Your task to perform on an android device: turn on notifications settings in the gmail app Image 0: 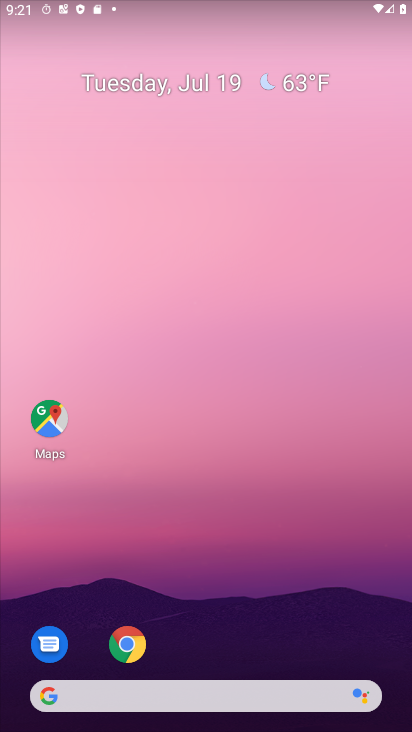
Step 0: drag from (262, 596) to (236, 233)
Your task to perform on an android device: turn on notifications settings in the gmail app Image 1: 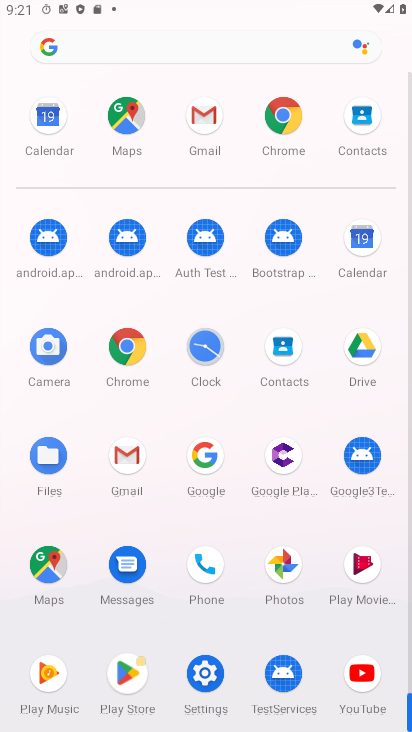
Step 1: drag from (253, 462) to (253, 144)
Your task to perform on an android device: turn on notifications settings in the gmail app Image 2: 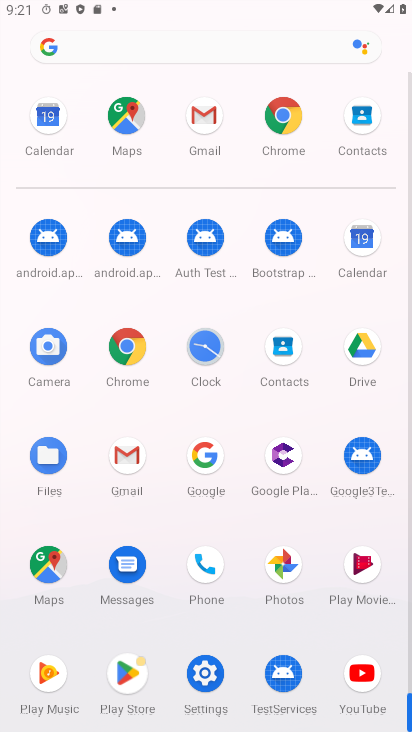
Step 2: click (201, 114)
Your task to perform on an android device: turn on notifications settings in the gmail app Image 3: 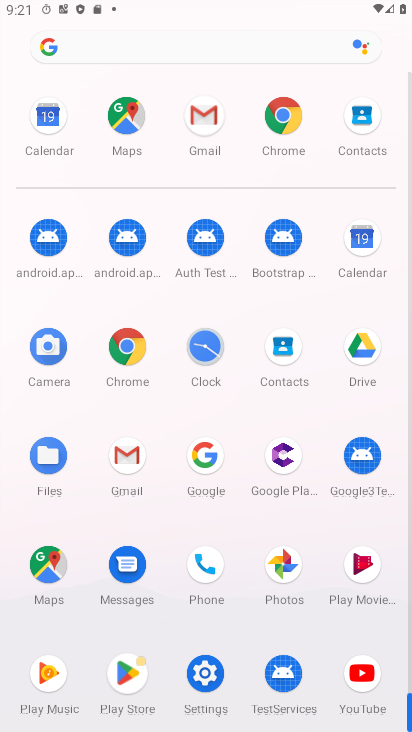
Step 3: click (201, 114)
Your task to perform on an android device: turn on notifications settings in the gmail app Image 4: 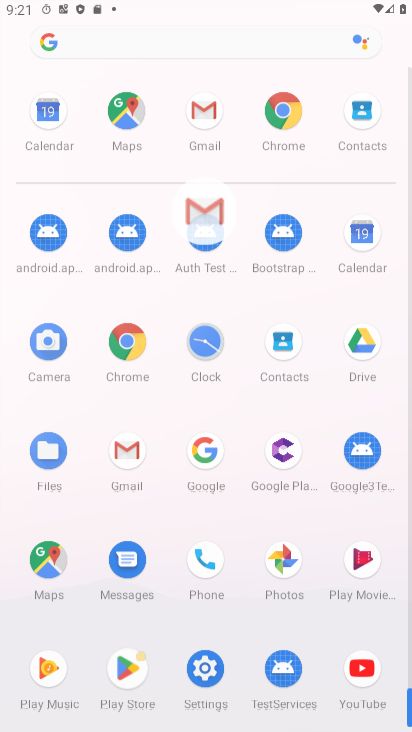
Step 4: click (201, 114)
Your task to perform on an android device: turn on notifications settings in the gmail app Image 5: 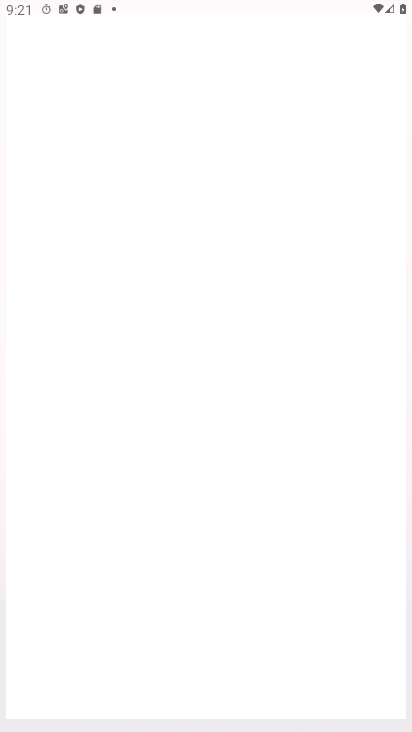
Step 5: click (200, 113)
Your task to perform on an android device: turn on notifications settings in the gmail app Image 6: 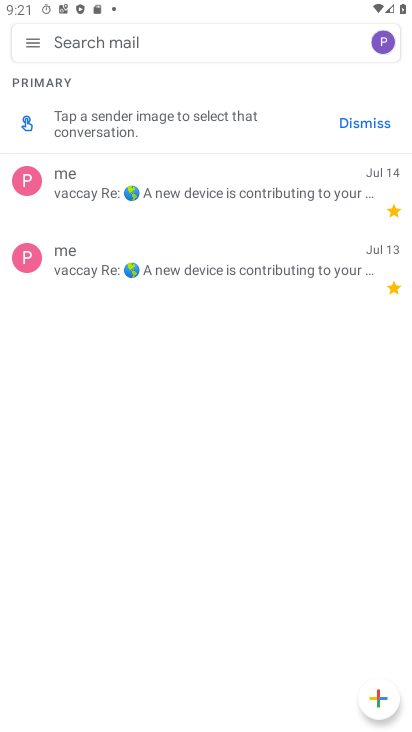
Step 6: click (31, 46)
Your task to perform on an android device: turn on notifications settings in the gmail app Image 7: 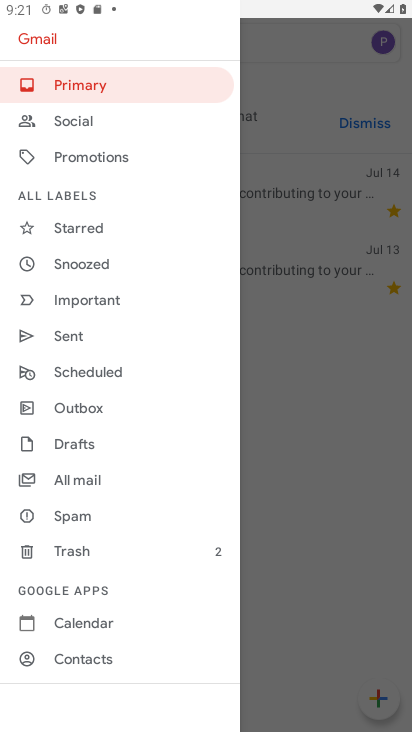
Step 7: drag from (90, 519) to (93, 273)
Your task to perform on an android device: turn on notifications settings in the gmail app Image 8: 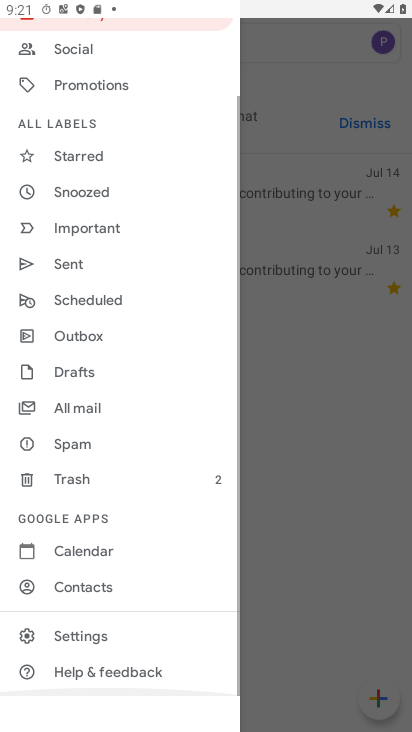
Step 8: drag from (160, 527) to (160, 198)
Your task to perform on an android device: turn on notifications settings in the gmail app Image 9: 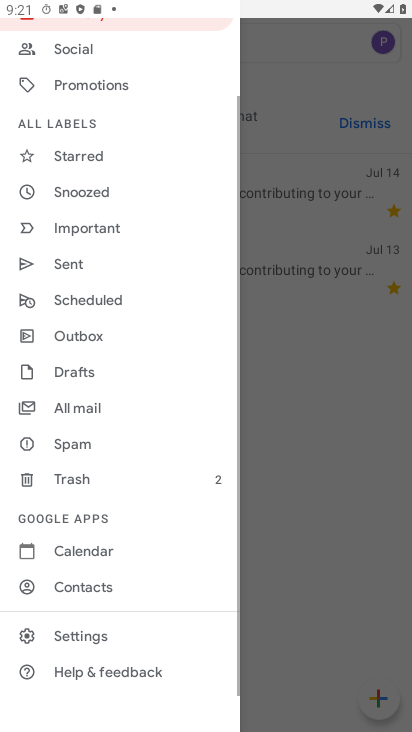
Step 9: click (81, 633)
Your task to perform on an android device: turn on notifications settings in the gmail app Image 10: 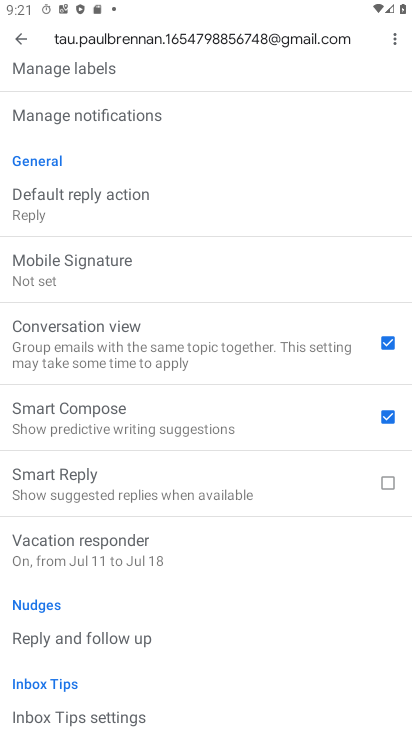
Step 10: drag from (139, 656) to (136, 427)
Your task to perform on an android device: turn on notifications settings in the gmail app Image 11: 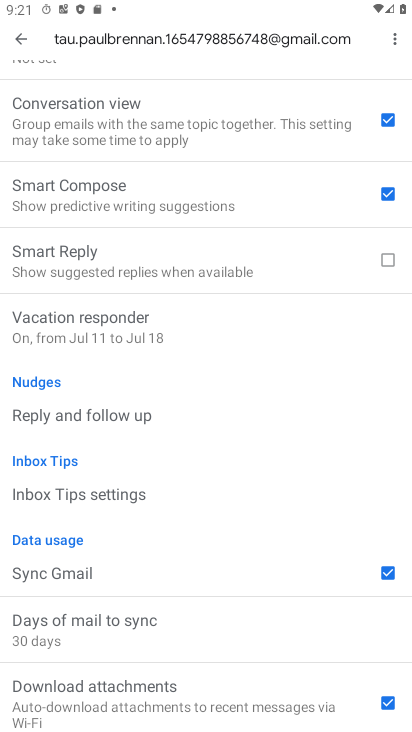
Step 11: drag from (99, 157) to (102, 532)
Your task to perform on an android device: turn on notifications settings in the gmail app Image 12: 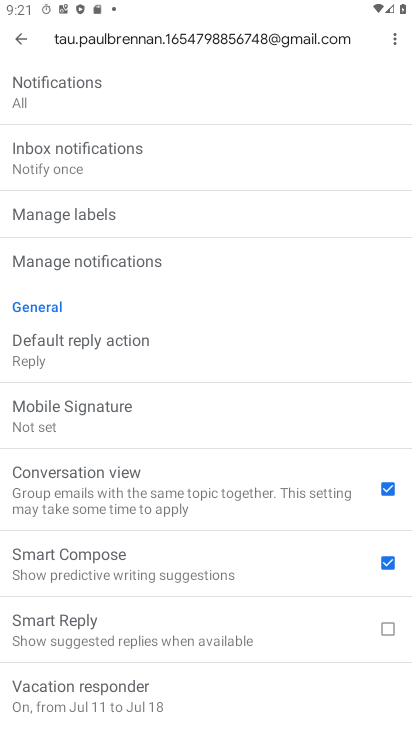
Step 12: click (34, 69)
Your task to perform on an android device: turn on notifications settings in the gmail app Image 13: 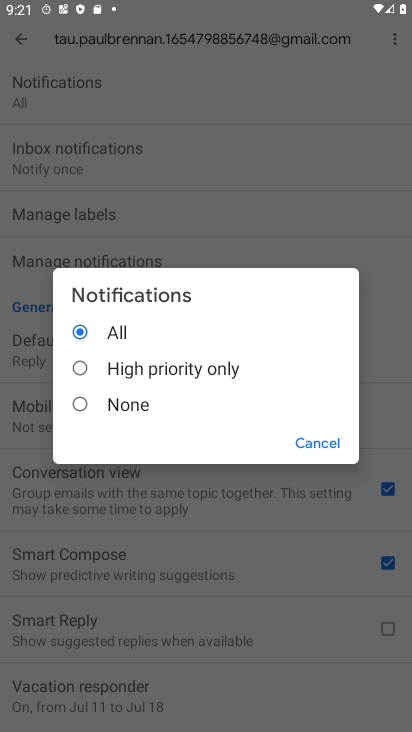
Step 13: click (328, 445)
Your task to perform on an android device: turn on notifications settings in the gmail app Image 14: 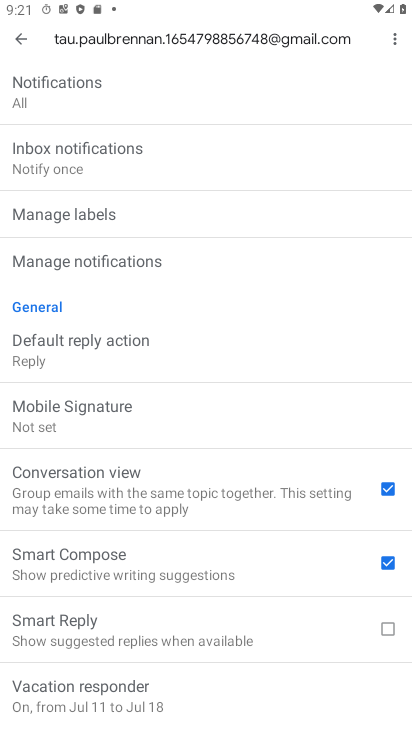
Step 14: task complete